Your task to perform on an android device: find photos in the google photos app Image 0: 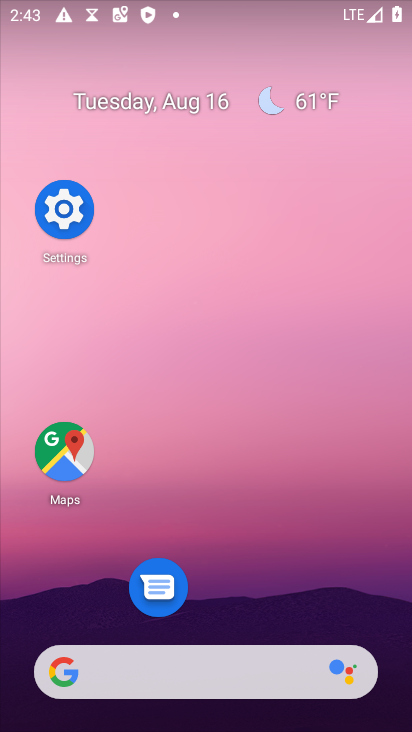
Step 0: drag from (239, 636) to (321, 60)
Your task to perform on an android device: find photos in the google photos app Image 1: 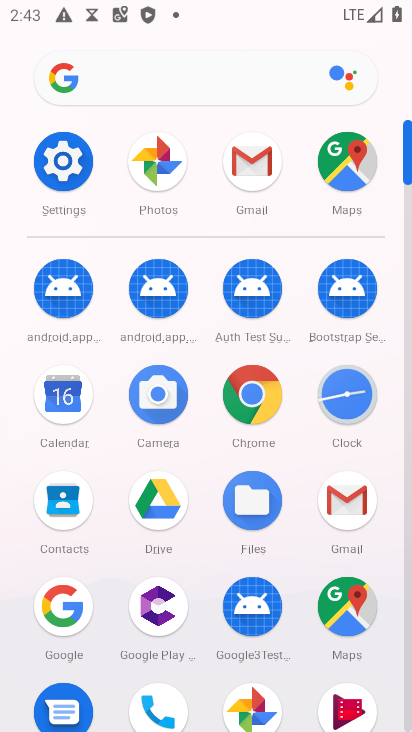
Step 1: click (152, 150)
Your task to perform on an android device: find photos in the google photos app Image 2: 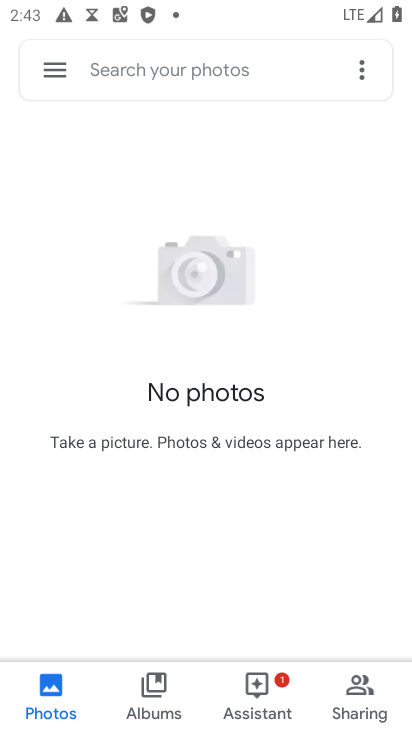
Step 2: click (48, 695)
Your task to perform on an android device: find photos in the google photos app Image 3: 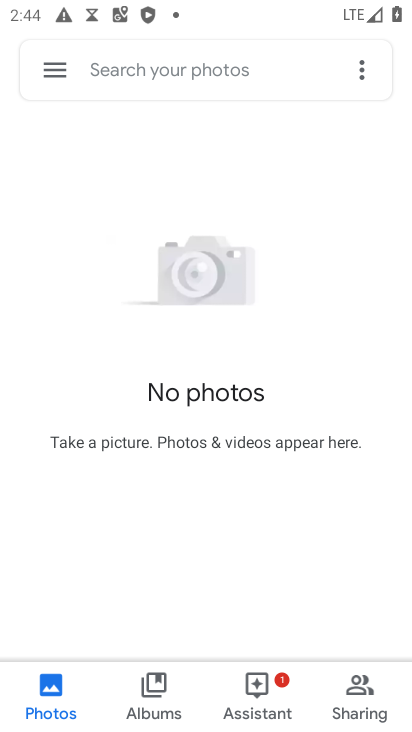
Step 3: task complete